Your task to perform on an android device: Open calendar and show me the second week of next month Image 0: 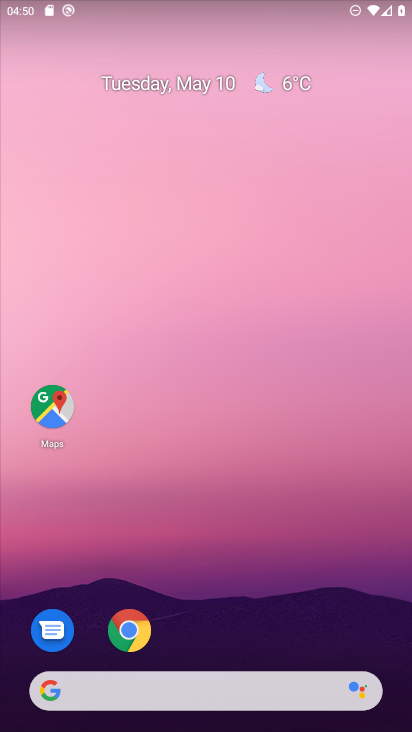
Step 0: click (200, 89)
Your task to perform on an android device: Open calendar and show me the second week of next month Image 1: 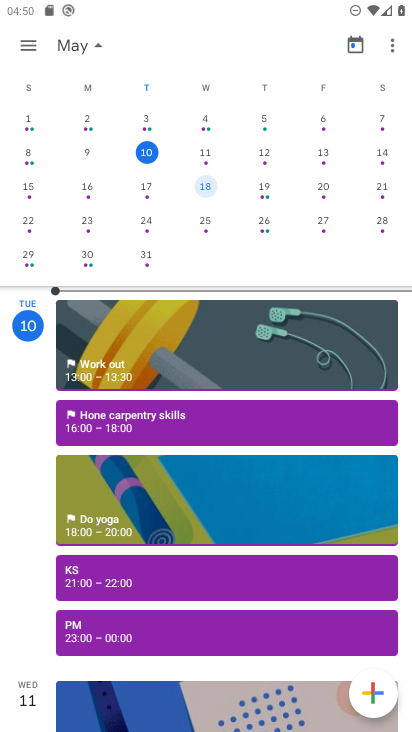
Step 1: drag from (327, 231) to (5, 392)
Your task to perform on an android device: Open calendar and show me the second week of next month Image 2: 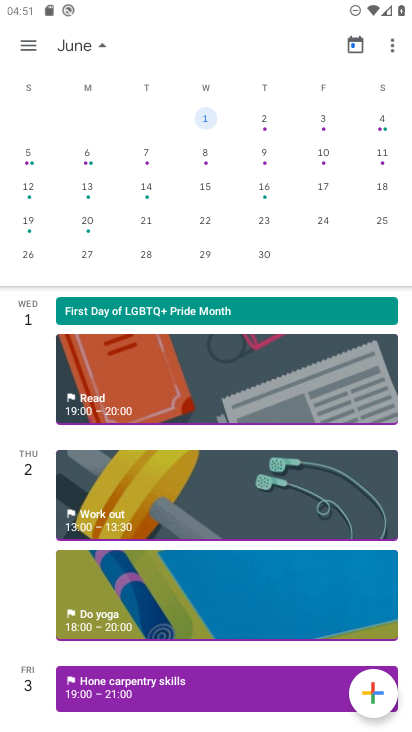
Step 2: click (195, 163)
Your task to perform on an android device: Open calendar and show me the second week of next month Image 3: 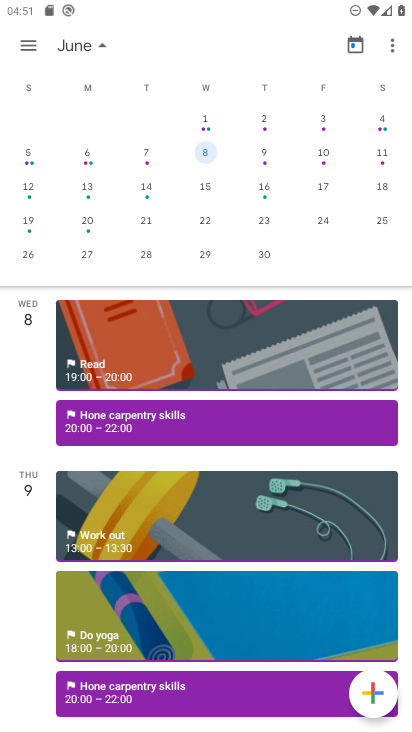
Step 3: task complete